Your task to perform on an android device: Open notification settings Image 0: 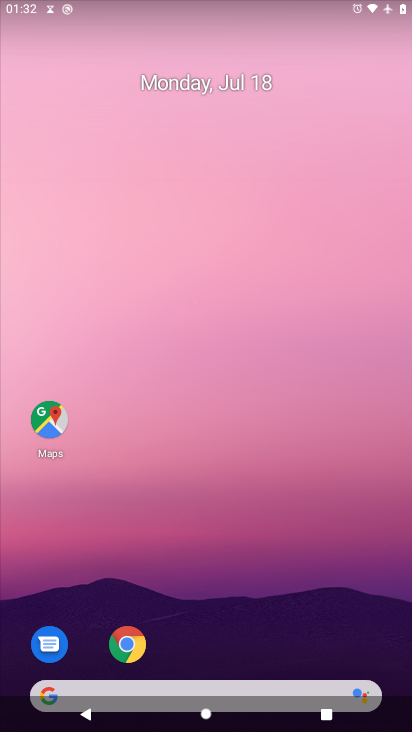
Step 0: press home button
Your task to perform on an android device: Open notification settings Image 1: 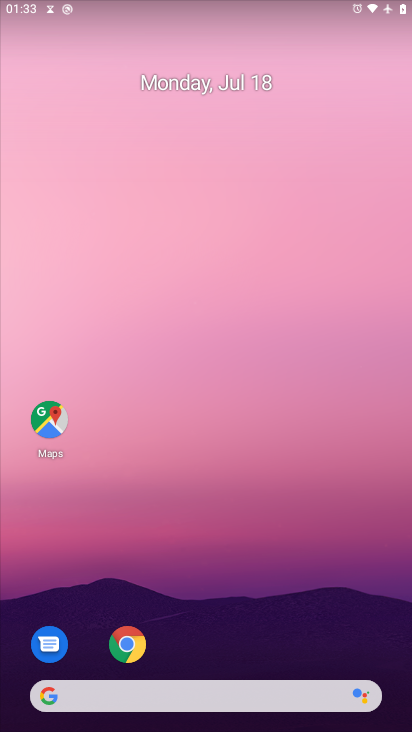
Step 1: drag from (283, 614) to (263, 0)
Your task to perform on an android device: Open notification settings Image 2: 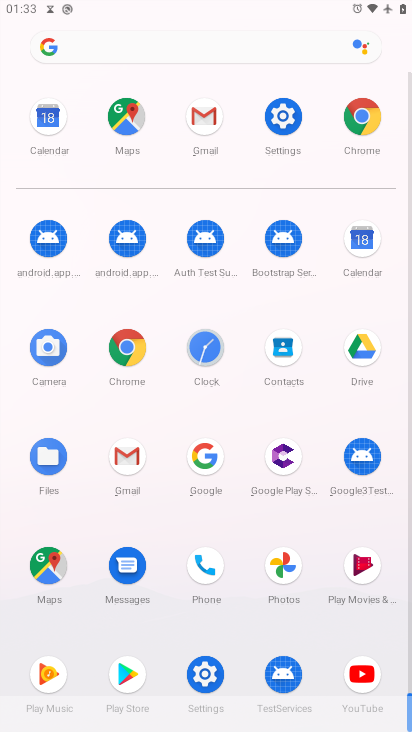
Step 2: click (274, 132)
Your task to perform on an android device: Open notification settings Image 3: 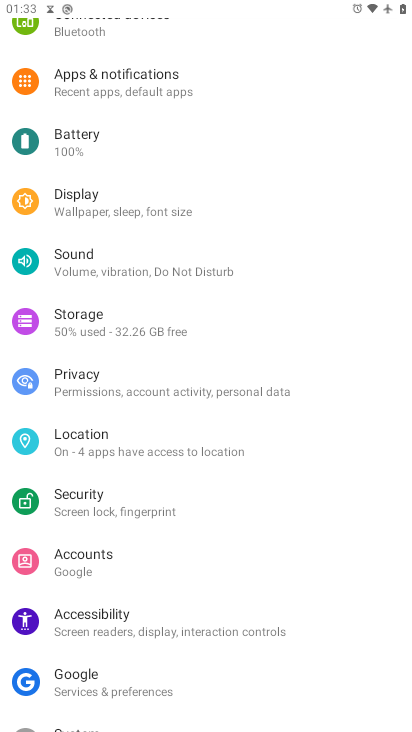
Step 3: click (96, 84)
Your task to perform on an android device: Open notification settings Image 4: 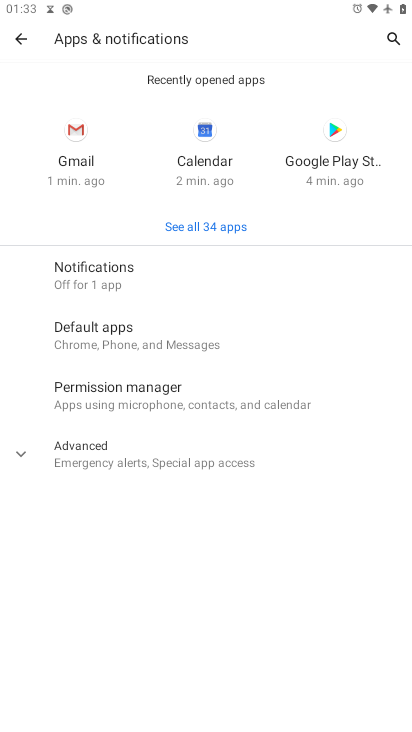
Step 4: click (87, 271)
Your task to perform on an android device: Open notification settings Image 5: 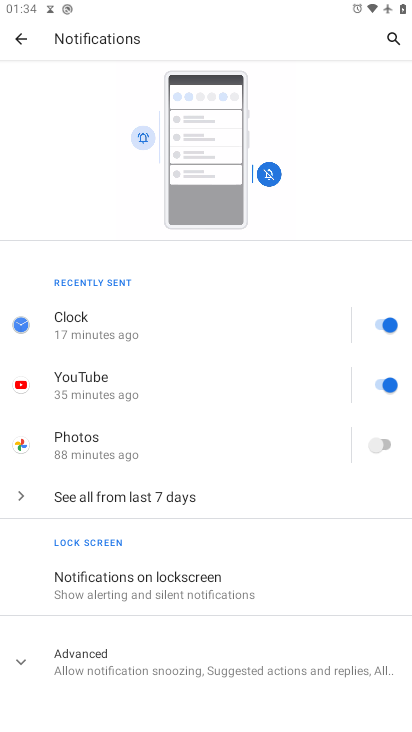
Step 5: task complete